Your task to perform on an android device: What's the weather? Image 0: 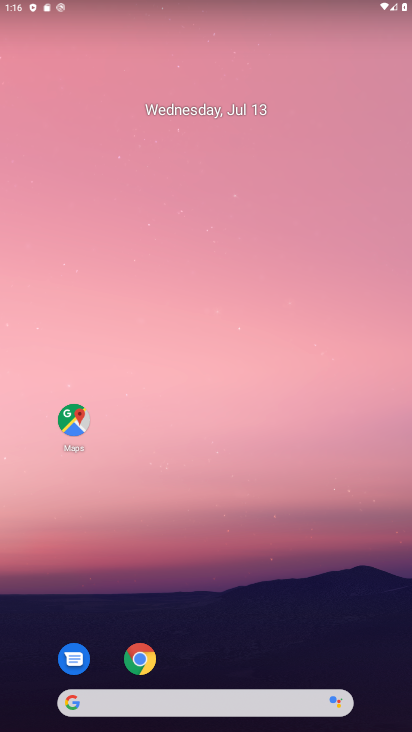
Step 0: drag from (0, 306) to (368, 281)
Your task to perform on an android device: What's the weather? Image 1: 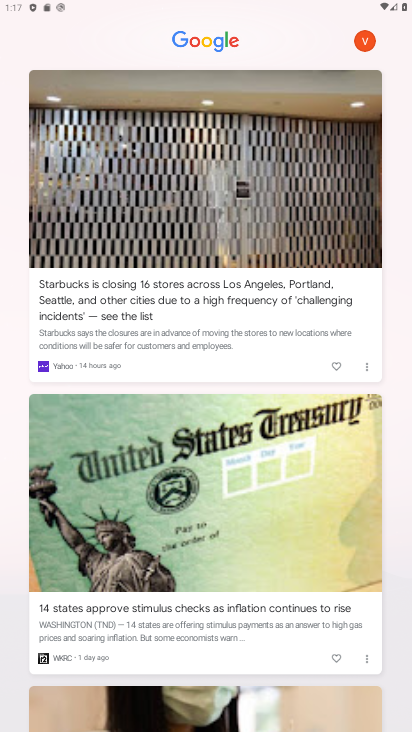
Step 1: task complete